Your task to perform on an android device: check battery use Image 0: 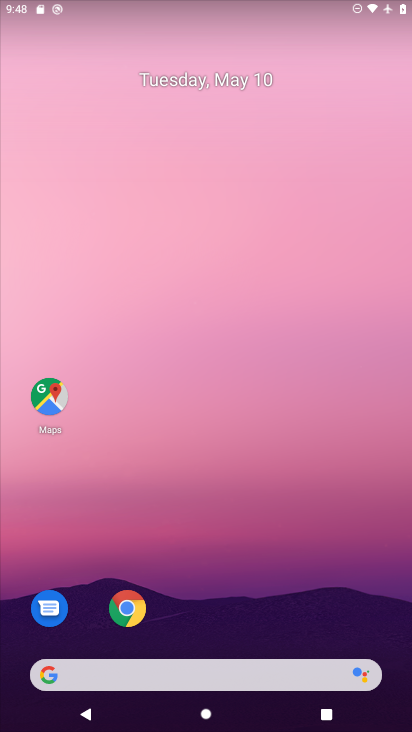
Step 0: drag from (231, 530) to (224, 271)
Your task to perform on an android device: check battery use Image 1: 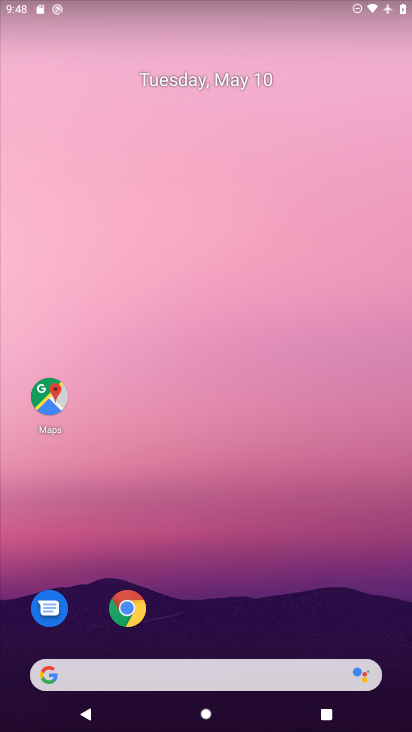
Step 1: drag from (247, 579) to (232, 303)
Your task to perform on an android device: check battery use Image 2: 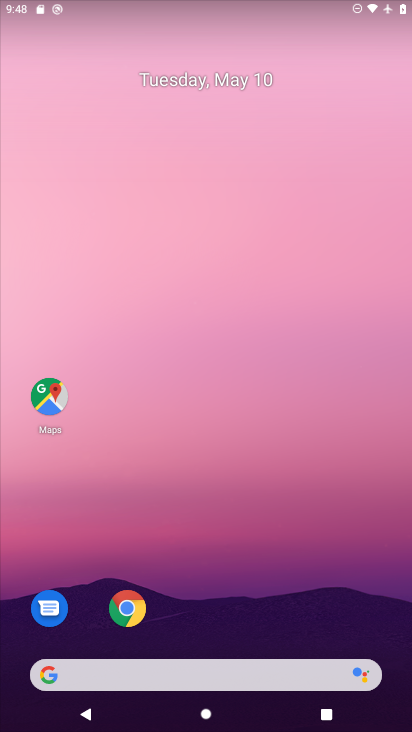
Step 2: drag from (210, 681) to (221, 187)
Your task to perform on an android device: check battery use Image 3: 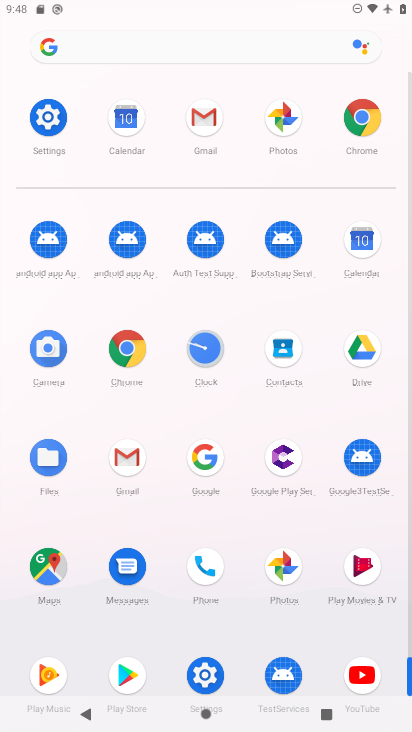
Step 3: click (46, 121)
Your task to perform on an android device: check battery use Image 4: 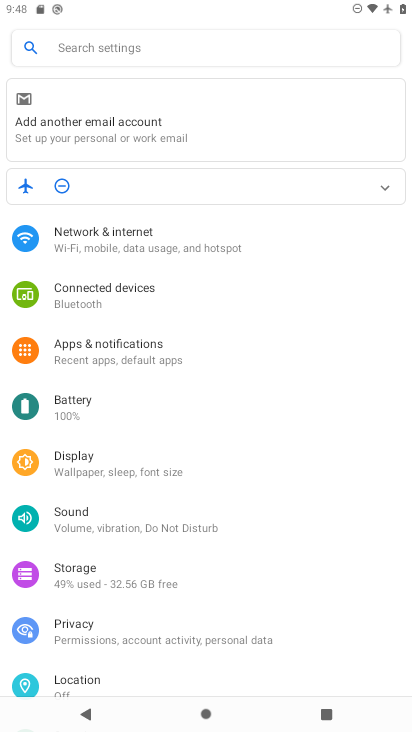
Step 4: click (107, 404)
Your task to perform on an android device: check battery use Image 5: 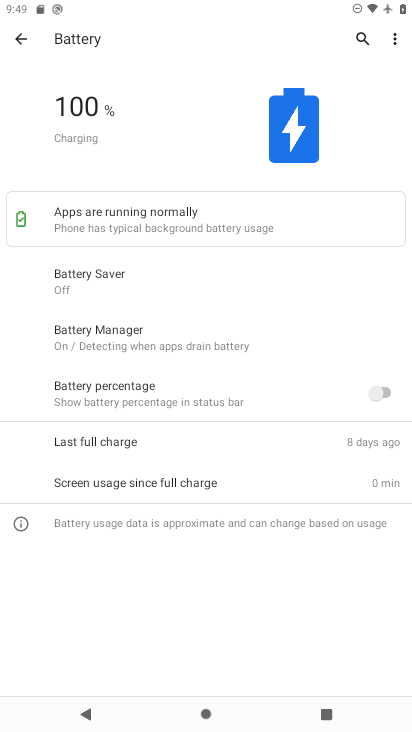
Step 5: task complete